Your task to perform on an android device: turn pop-ups off in chrome Image 0: 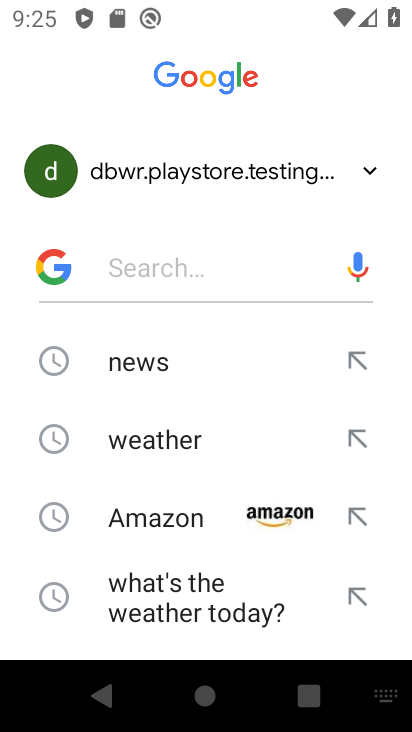
Step 0: press home button
Your task to perform on an android device: turn pop-ups off in chrome Image 1: 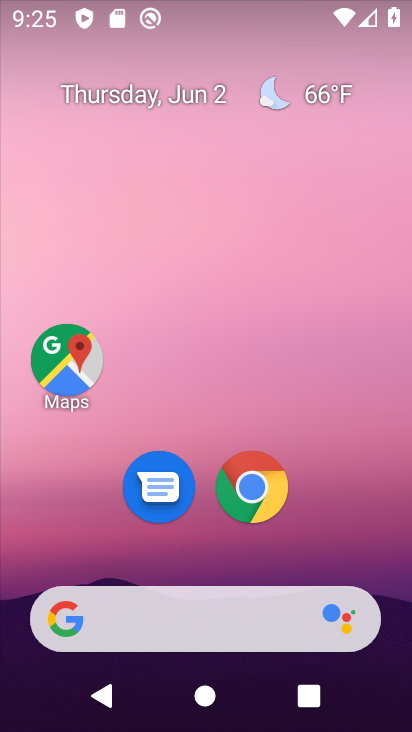
Step 1: click (248, 492)
Your task to perform on an android device: turn pop-ups off in chrome Image 2: 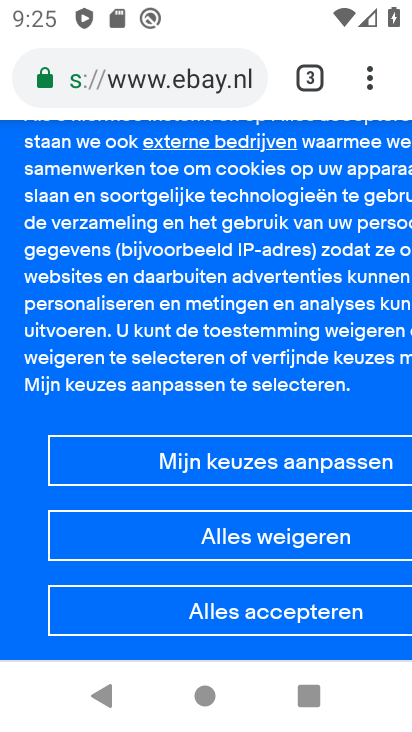
Step 2: click (370, 85)
Your task to perform on an android device: turn pop-ups off in chrome Image 3: 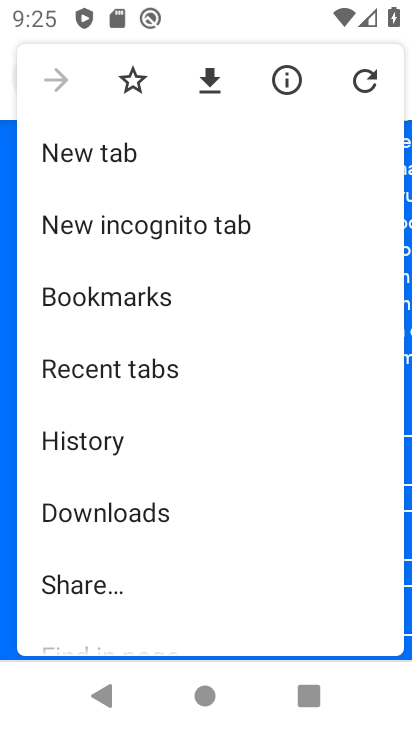
Step 3: drag from (108, 621) to (110, 248)
Your task to perform on an android device: turn pop-ups off in chrome Image 4: 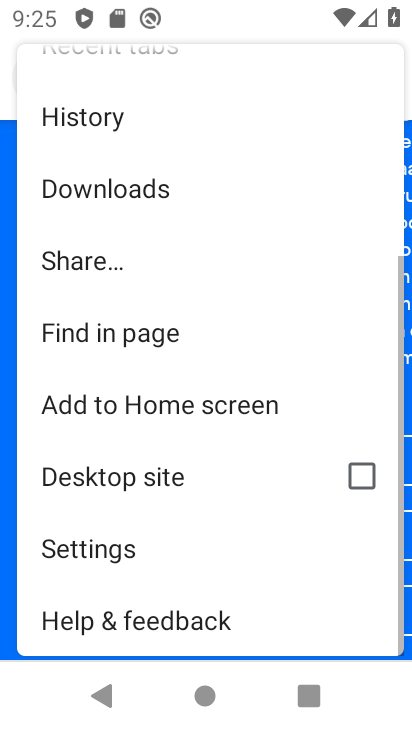
Step 4: click (101, 550)
Your task to perform on an android device: turn pop-ups off in chrome Image 5: 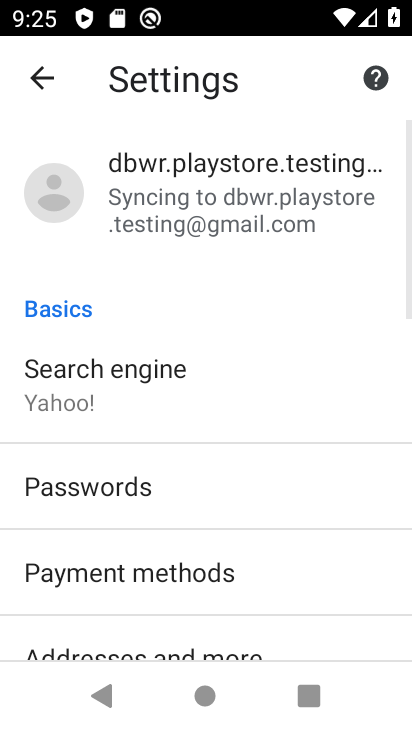
Step 5: drag from (158, 629) to (164, 267)
Your task to perform on an android device: turn pop-ups off in chrome Image 6: 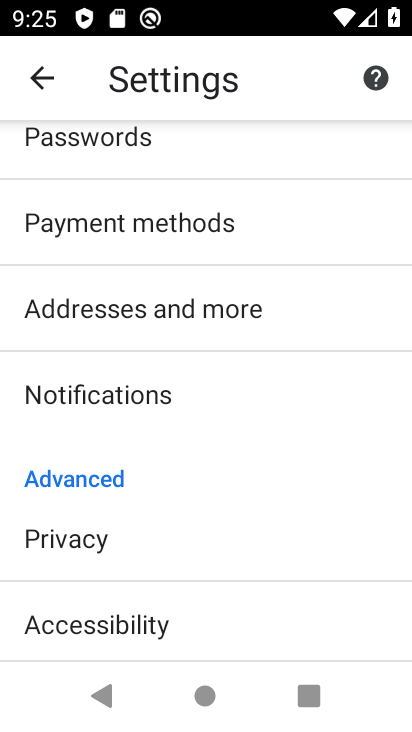
Step 6: drag from (187, 588) to (160, 215)
Your task to perform on an android device: turn pop-ups off in chrome Image 7: 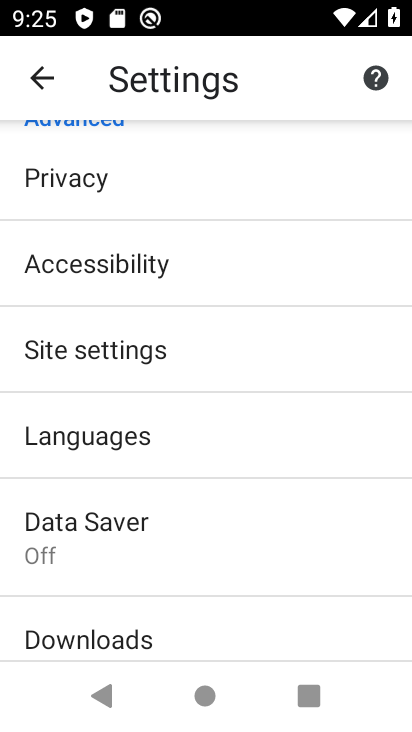
Step 7: click (109, 350)
Your task to perform on an android device: turn pop-ups off in chrome Image 8: 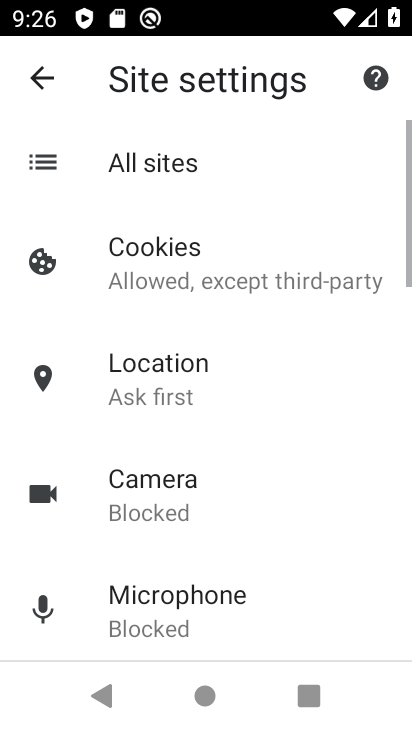
Step 8: drag from (196, 630) to (149, 161)
Your task to perform on an android device: turn pop-ups off in chrome Image 9: 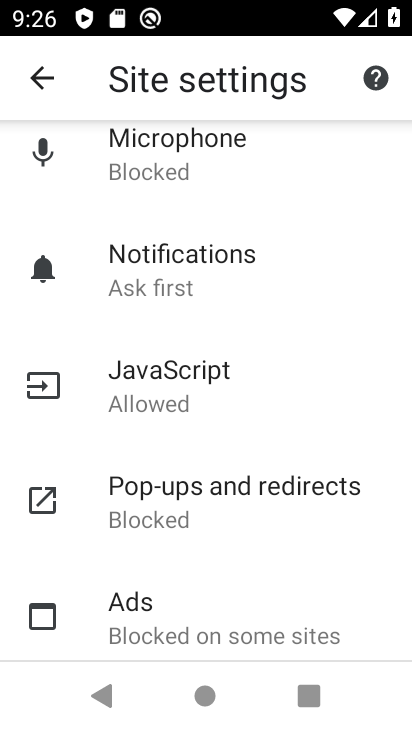
Step 9: click (147, 495)
Your task to perform on an android device: turn pop-ups off in chrome Image 10: 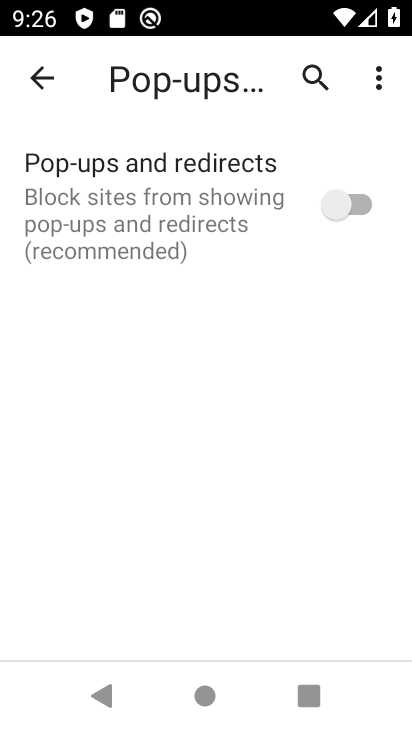
Step 10: task complete